Your task to perform on an android device: Open settings Image 0: 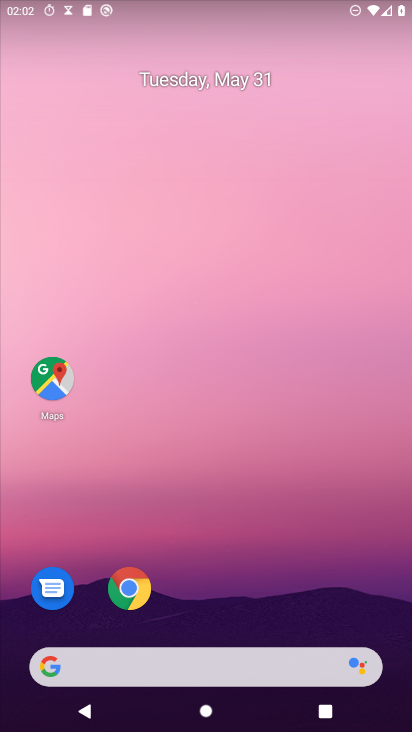
Step 0: drag from (235, 656) to (253, 2)
Your task to perform on an android device: Open settings Image 1: 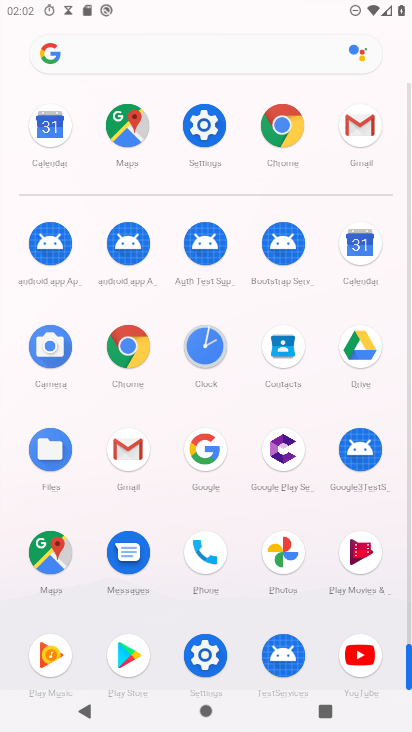
Step 1: click (216, 114)
Your task to perform on an android device: Open settings Image 2: 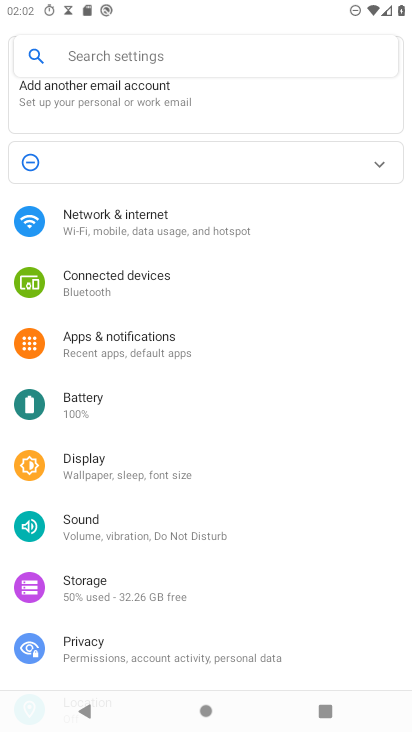
Step 2: task complete